Your task to perform on an android device: check android version Image 0: 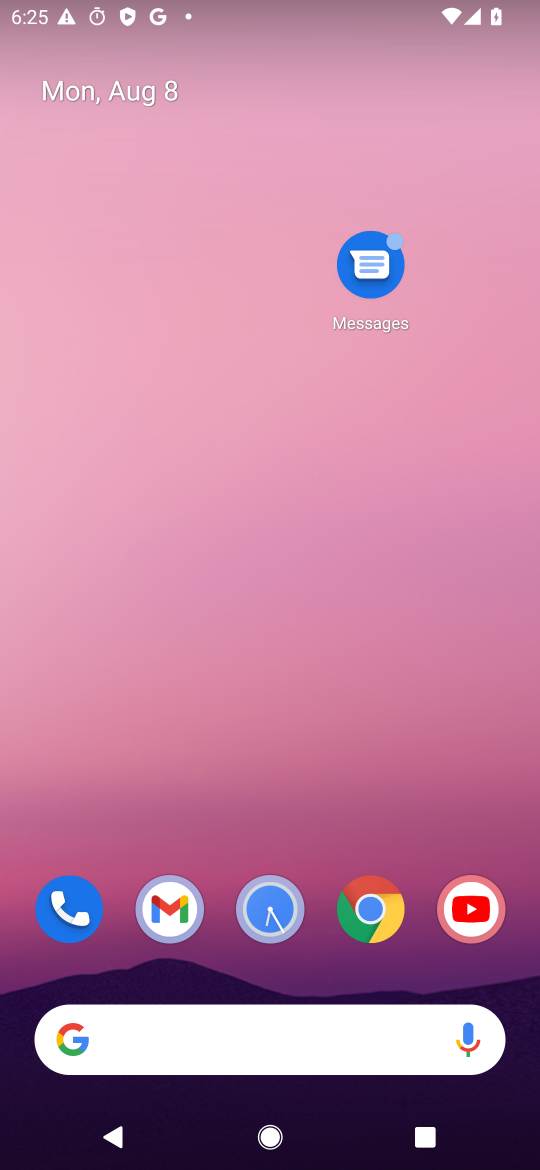
Step 0: drag from (262, 1039) to (298, 28)
Your task to perform on an android device: check android version Image 1: 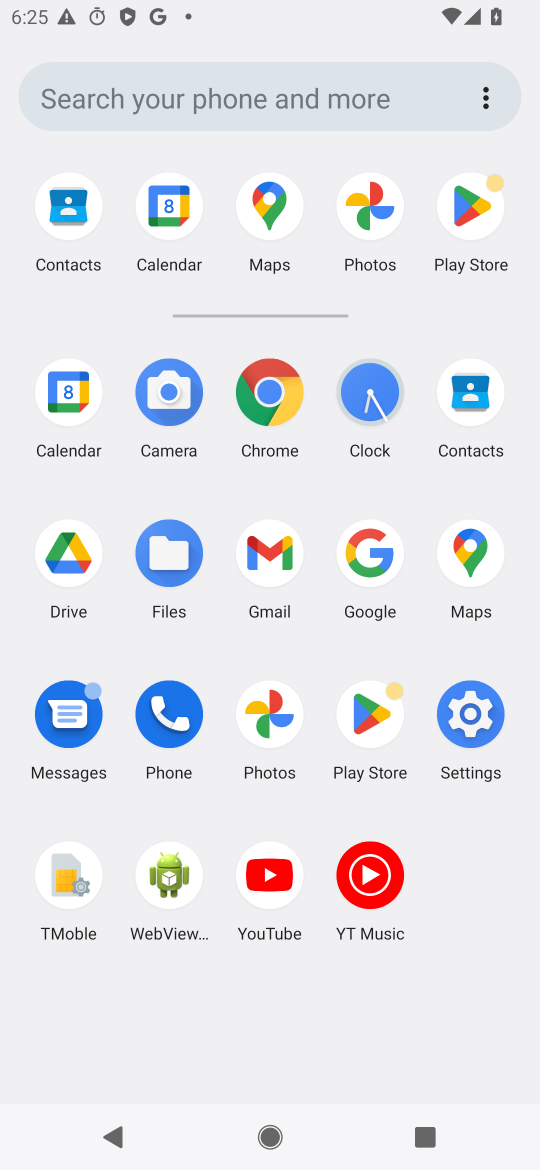
Step 1: click (472, 711)
Your task to perform on an android device: check android version Image 2: 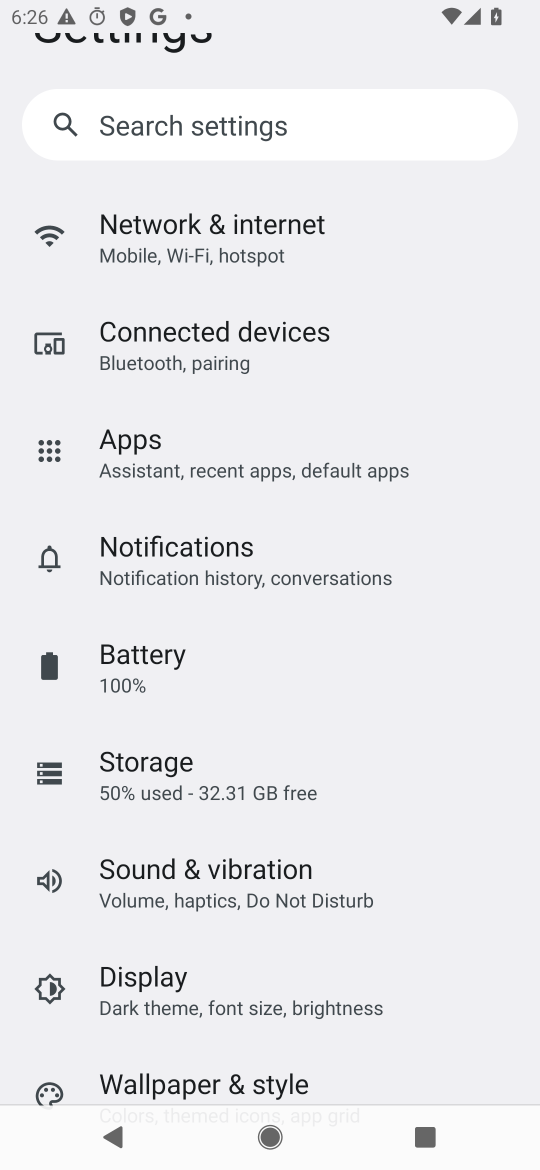
Step 2: drag from (258, 1012) to (475, 157)
Your task to perform on an android device: check android version Image 3: 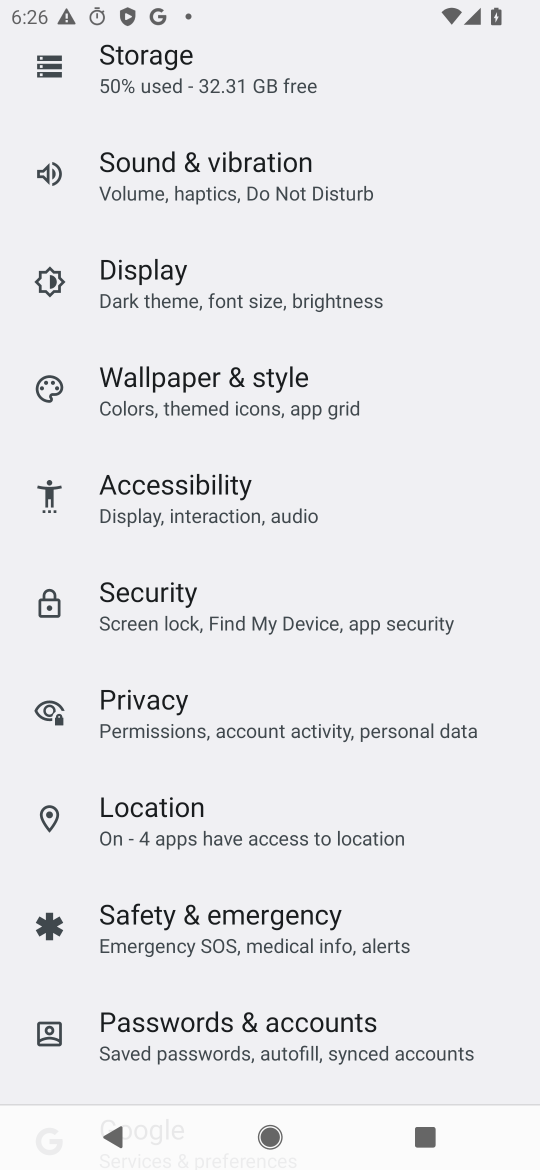
Step 3: drag from (270, 1010) to (345, 156)
Your task to perform on an android device: check android version Image 4: 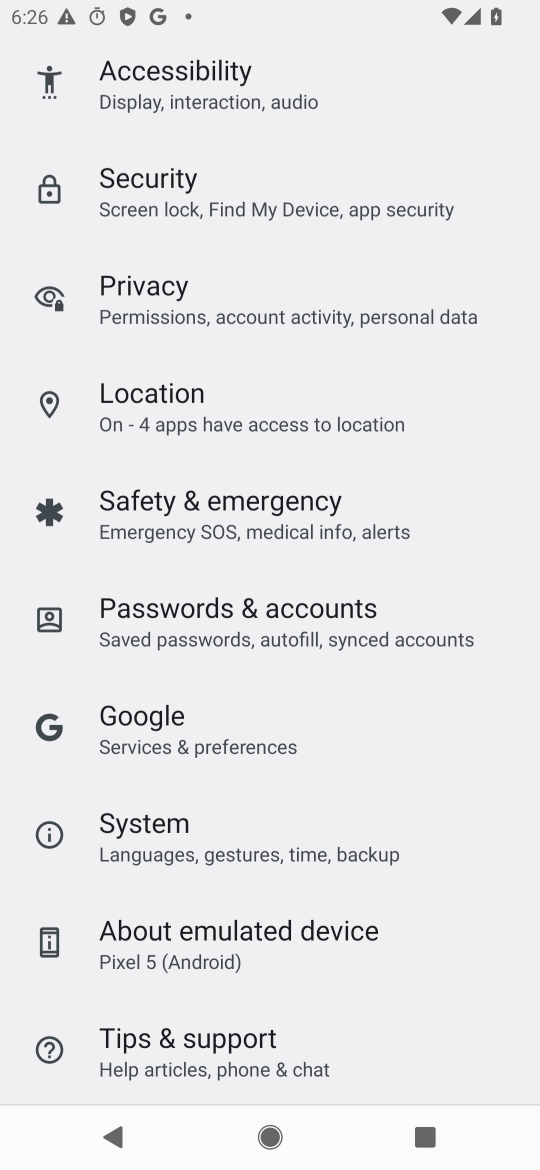
Step 4: drag from (301, 1019) to (341, 144)
Your task to perform on an android device: check android version Image 5: 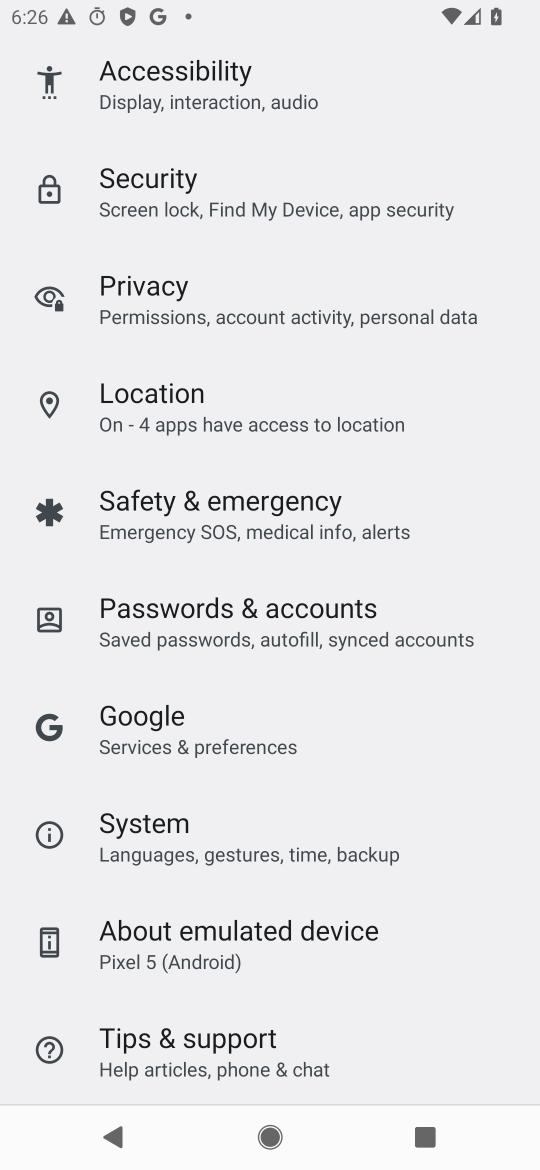
Step 5: click (235, 941)
Your task to perform on an android device: check android version Image 6: 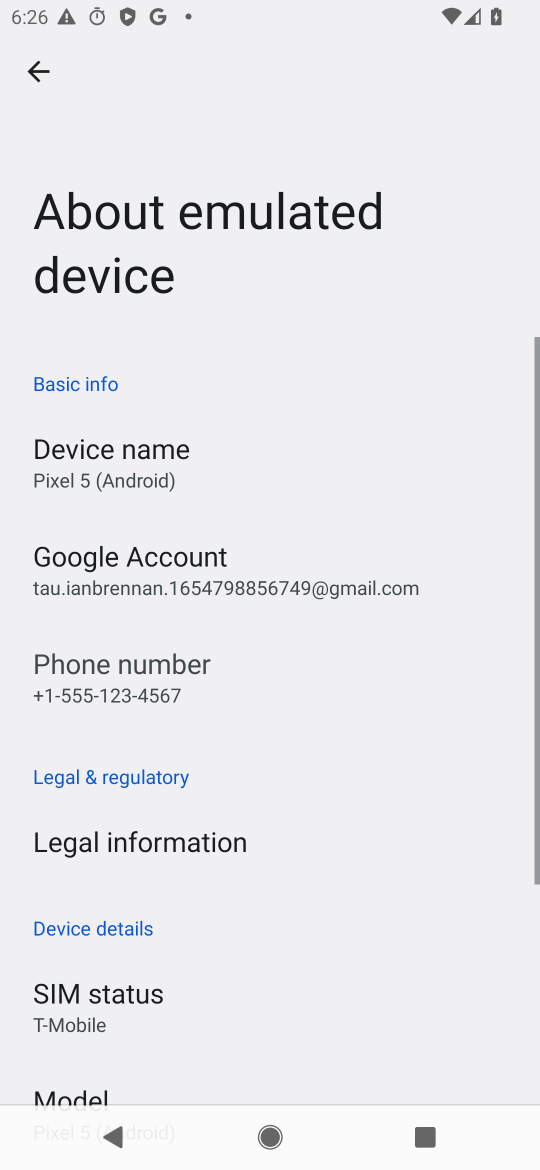
Step 6: task complete